Your task to perform on an android device: Show me recent news Image 0: 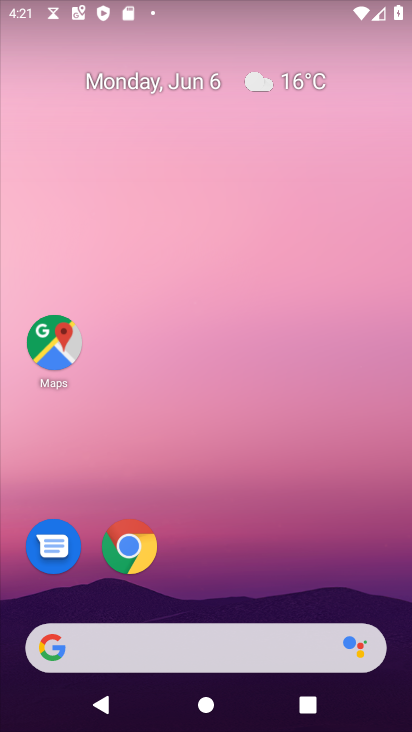
Step 0: drag from (272, 426) to (290, 0)
Your task to perform on an android device: Show me recent news Image 1: 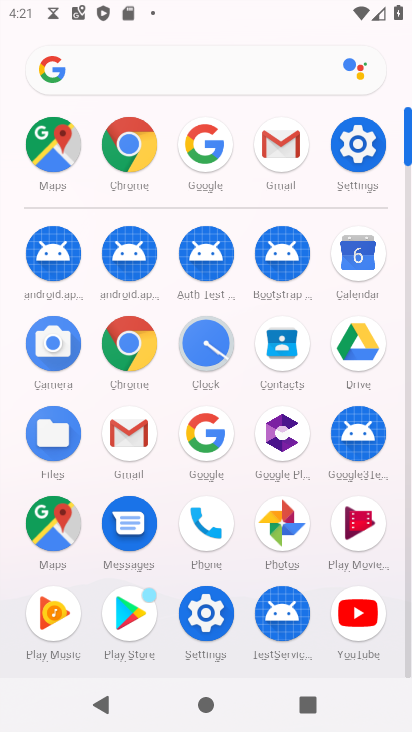
Step 1: click (112, 126)
Your task to perform on an android device: Show me recent news Image 2: 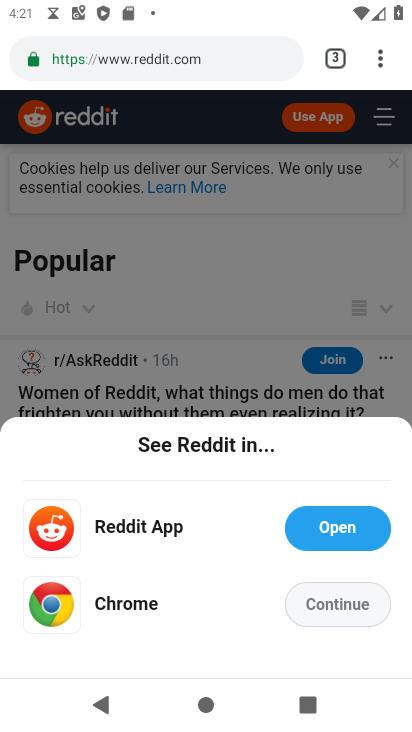
Step 2: task complete